Your task to perform on an android device: show emergency info Image 0: 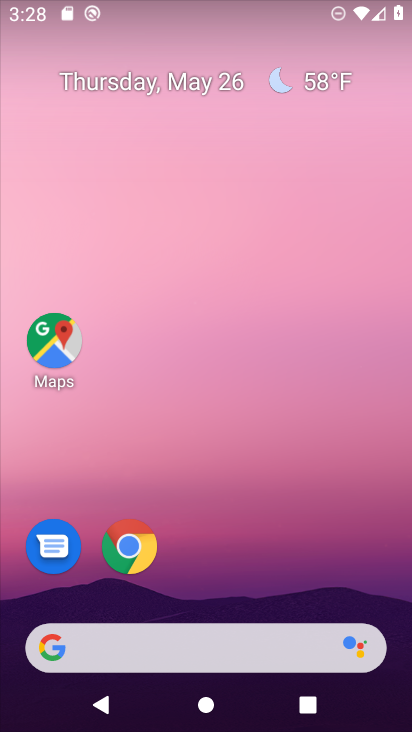
Step 0: press home button
Your task to perform on an android device: show emergency info Image 1: 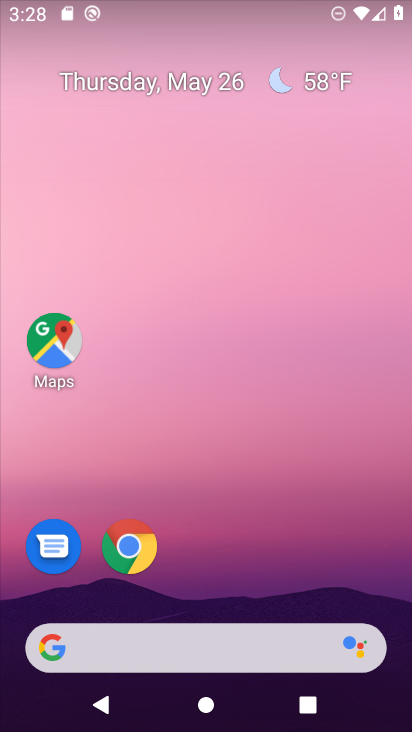
Step 1: drag from (222, 607) to (227, 63)
Your task to perform on an android device: show emergency info Image 2: 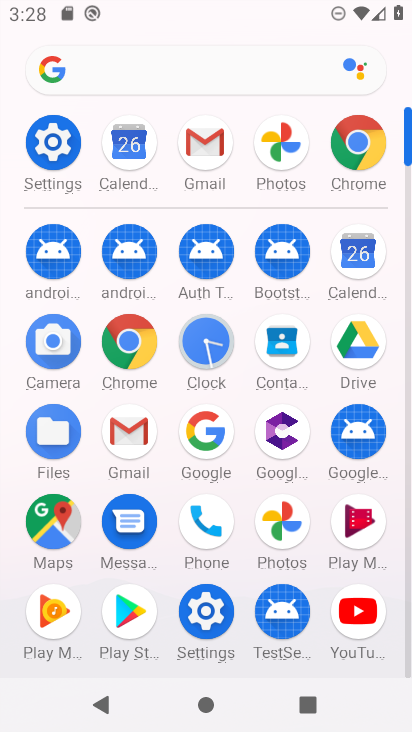
Step 2: click (47, 135)
Your task to perform on an android device: show emergency info Image 3: 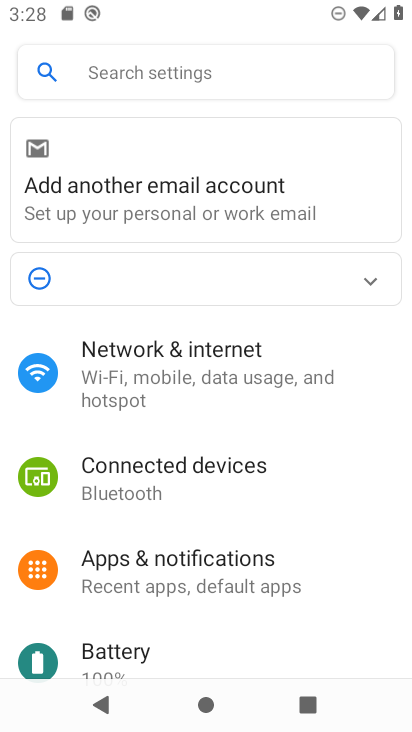
Step 3: drag from (211, 629) to (225, 122)
Your task to perform on an android device: show emergency info Image 4: 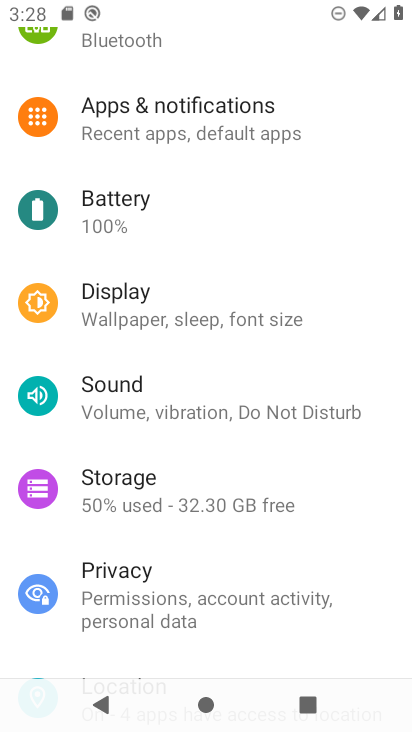
Step 4: drag from (199, 600) to (248, 154)
Your task to perform on an android device: show emergency info Image 5: 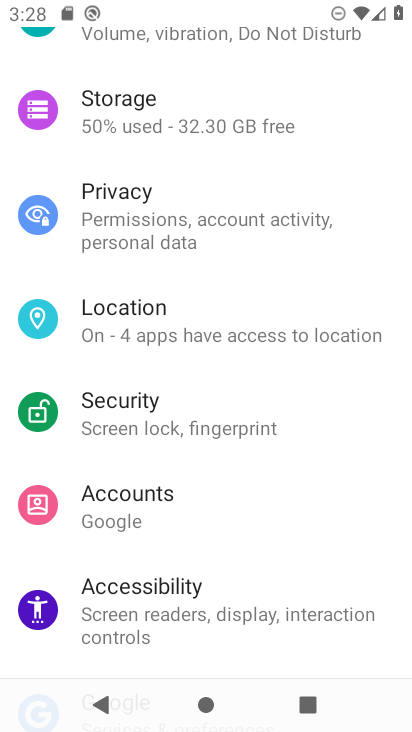
Step 5: drag from (191, 633) to (221, 102)
Your task to perform on an android device: show emergency info Image 6: 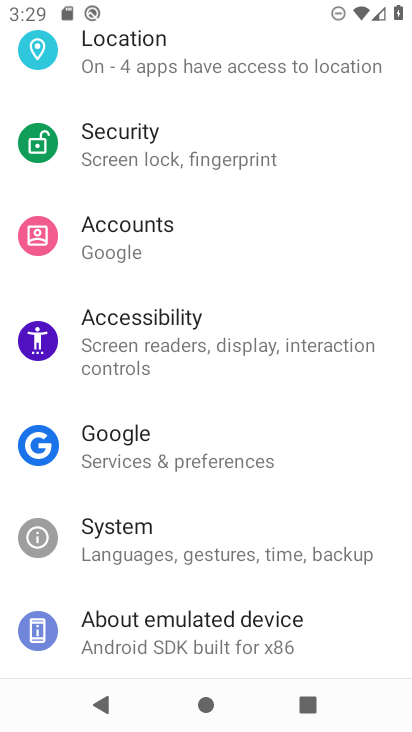
Step 6: click (215, 631)
Your task to perform on an android device: show emergency info Image 7: 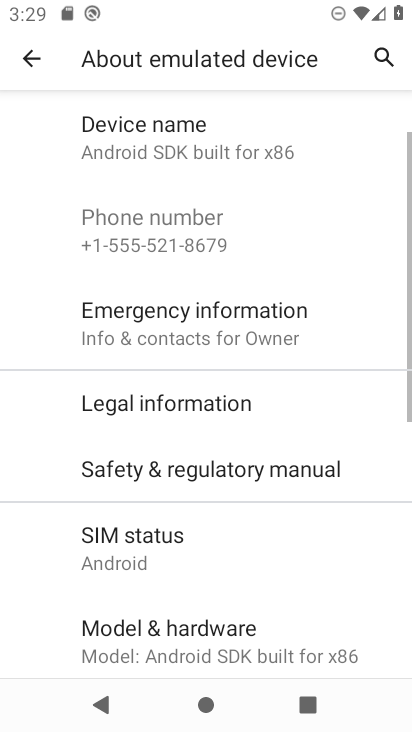
Step 7: drag from (286, 631) to (304, 187)
Your task to perform on an android device: show emergency info Image 8: 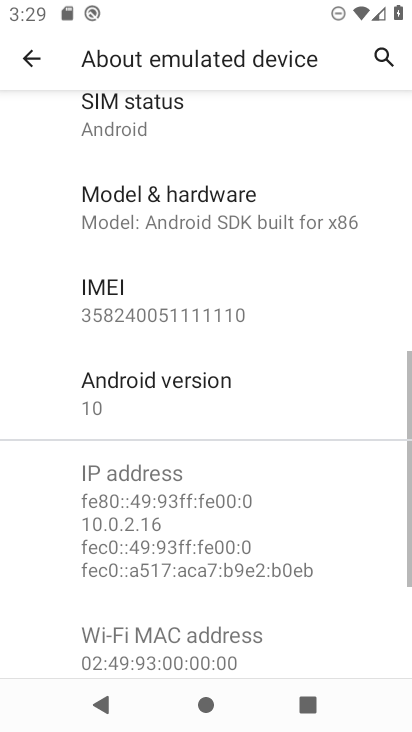
Step 8: drag from (170, 119) to (244, 711)
Your task to perform on an android device: show emergency info Image 9: 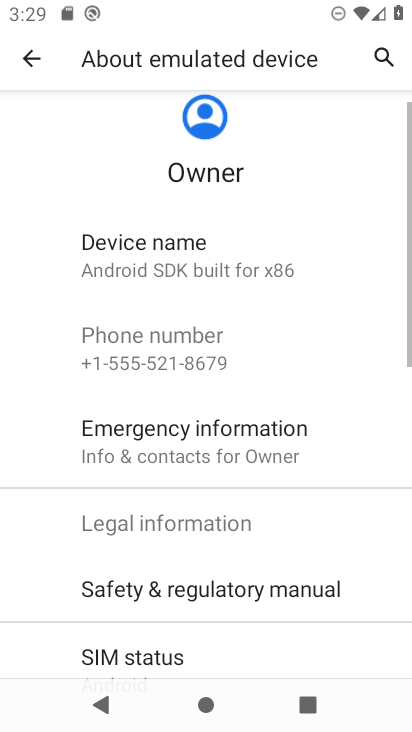
Step 9: click (260, 433)
Your task to perform on an android device: show emergency info Image 10: 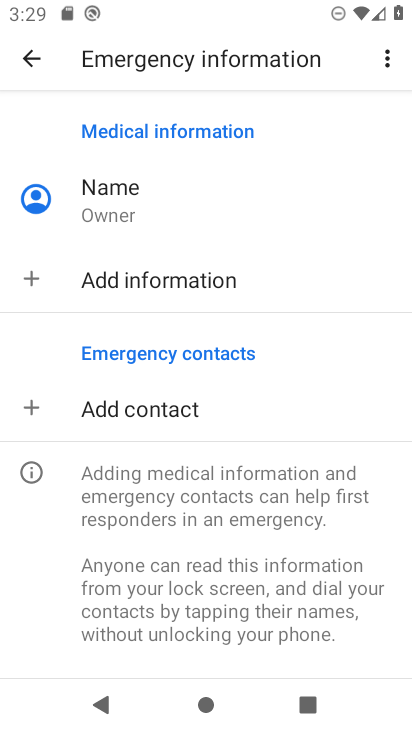
Step 10: task complete